Your task to perform on an android device: Search for "sony triple a" on amazon, select the first entry, and add it to the cart. Image 0: 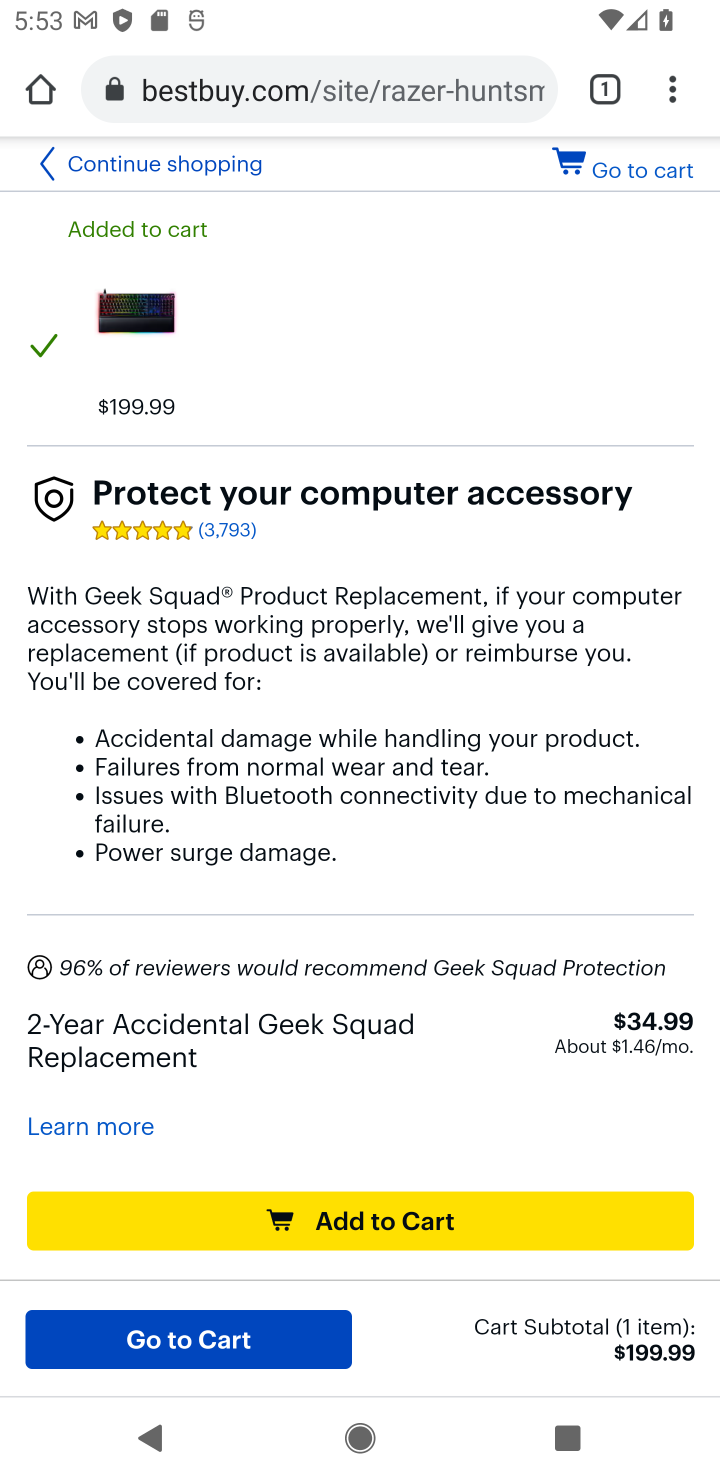
Step 0: click (618, 88)
Your task to perform on an android device: Search for "sony triple a" on amazon, select the first entry, and add it to the cart. Image 1: 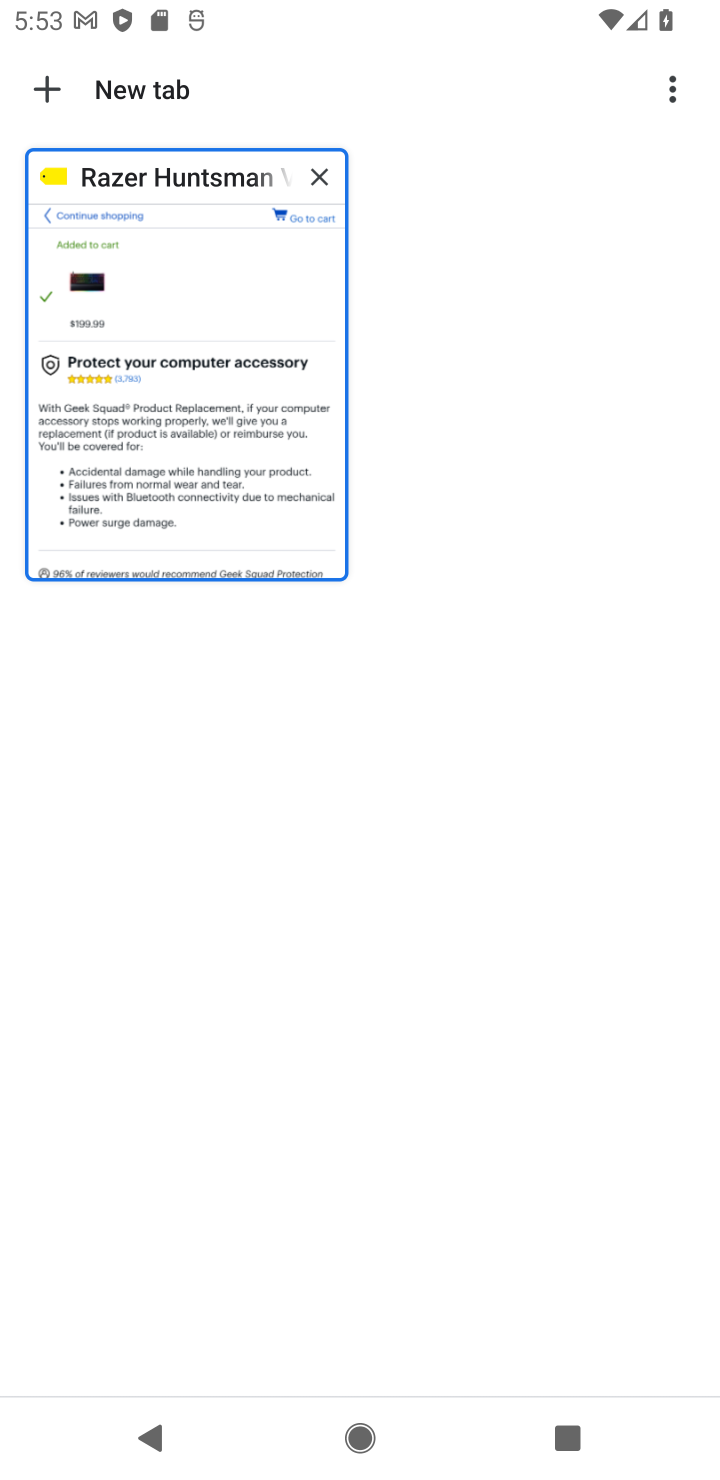
Step 1: click (41, 95)
Your task to perform on an android device: Search for "sony triple a" on amazon, select the first entry, and add it to the cart. Image 2: 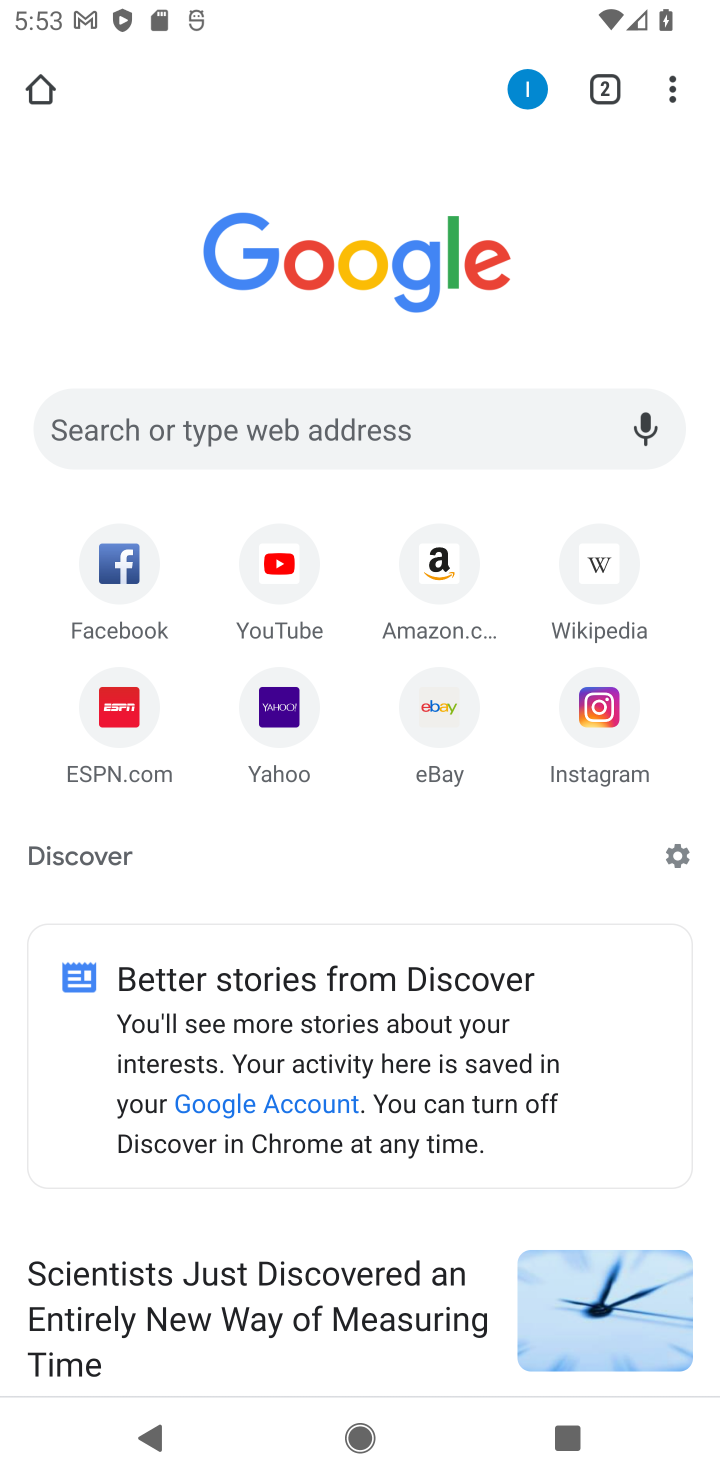
Step 2: click (434, 563)
Your task to perform on an android device: Search for "sony triple a" on amazon, select the first entry, and add it to the cart. Image 3: 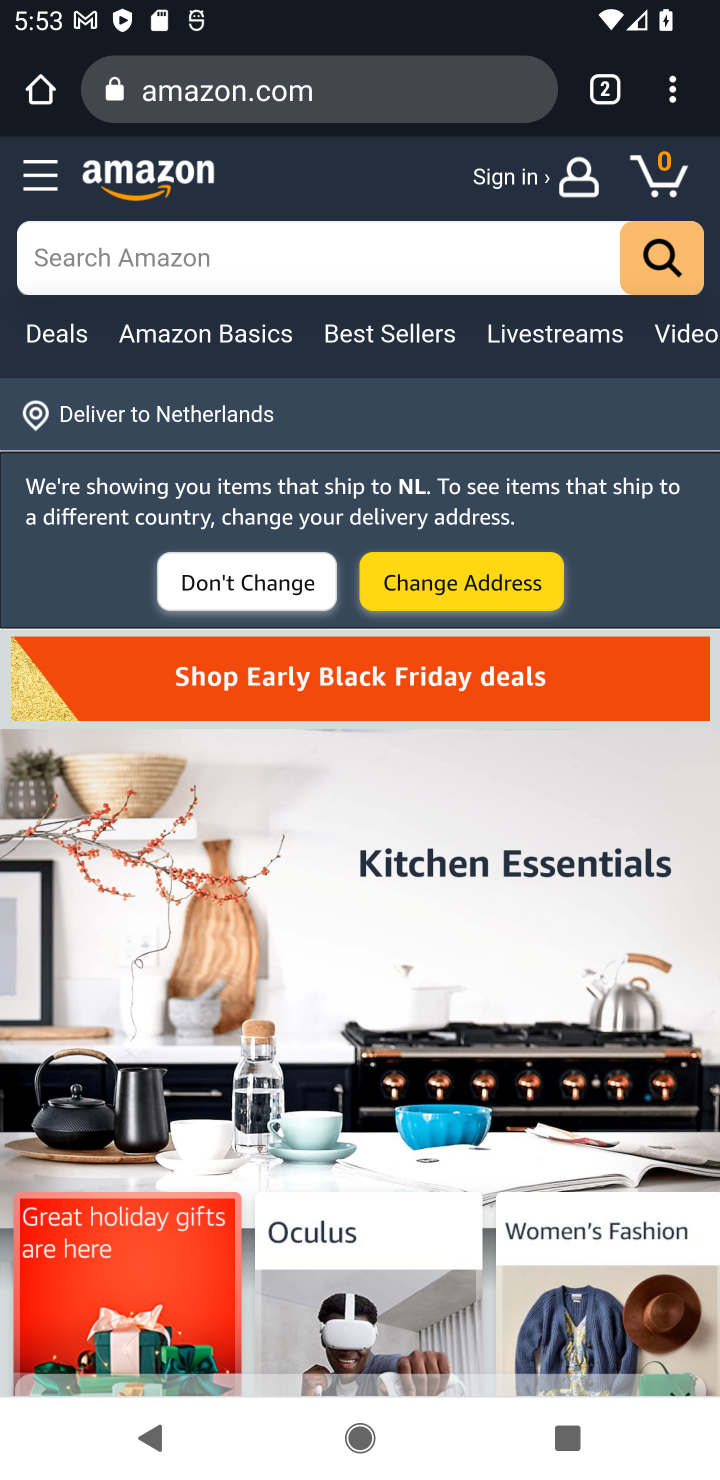
Step 3: click (430, 264)
Your task to perform on an android device: Search for "sony triple a" on amazon, select the first entry, and add it to the cart. Image 4: 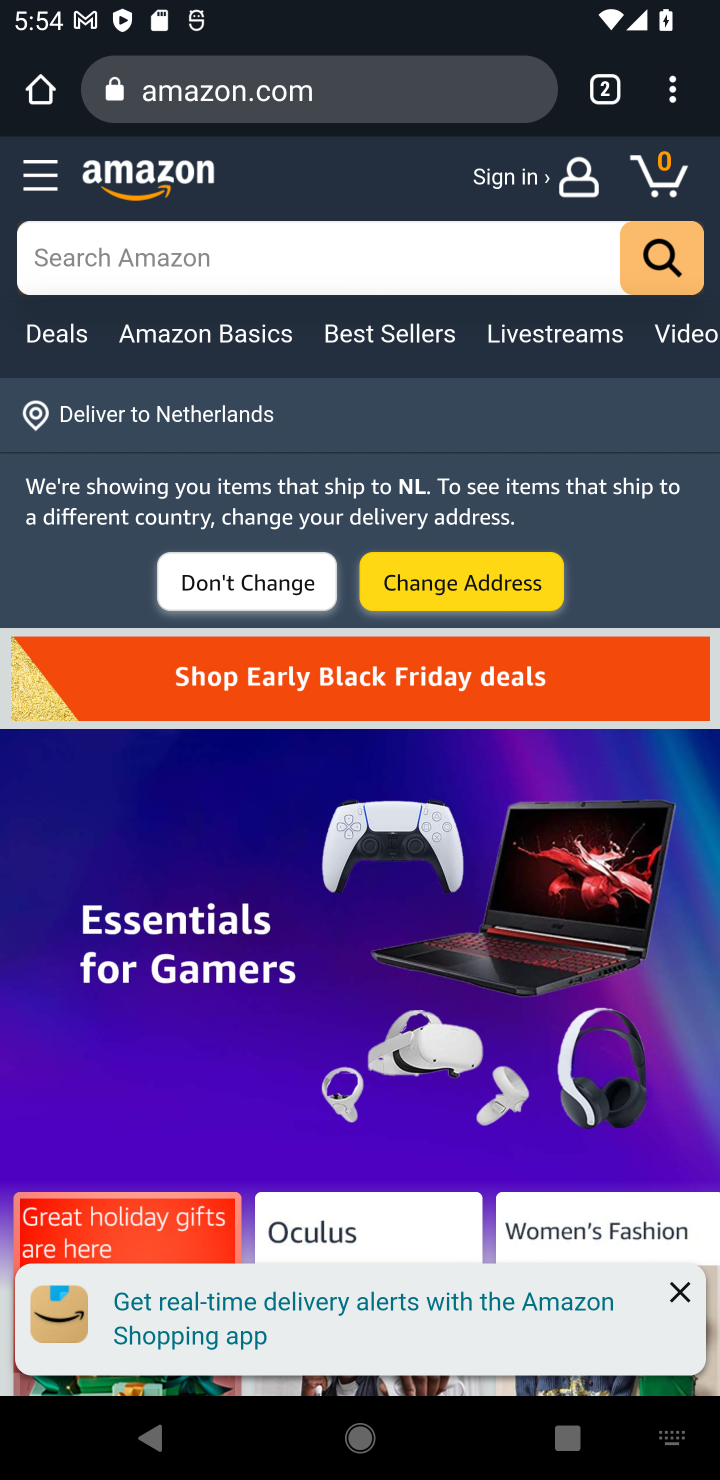
Step 4: type "sony triple a"
Your task to perform on an android device: Search for "sony triple a" on amazon, select the first entry, and add it to the cart. Image 5: 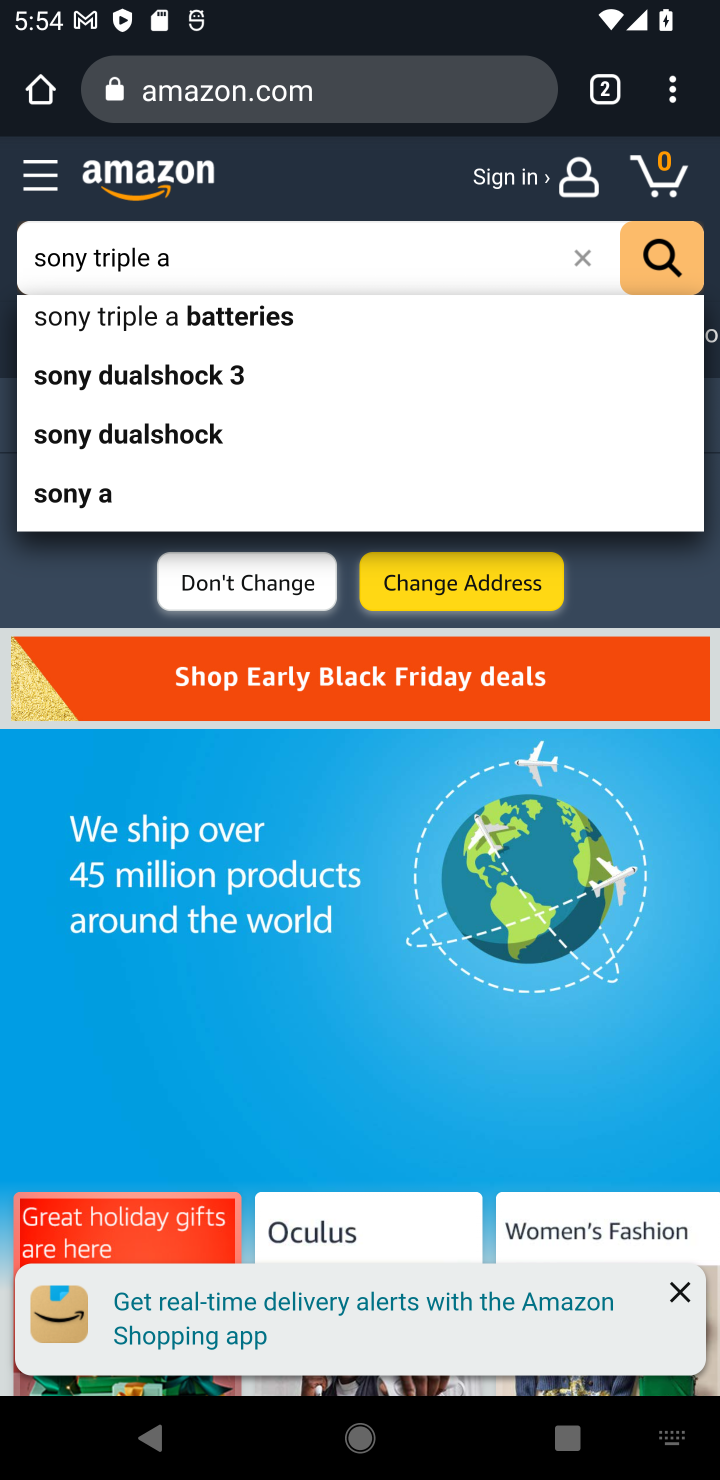
Step 5: click (222, 322)
Your task to perform on an android device: Search for "sony triple a" on amazon, select the first entry, and add it to the cart. Image 6: 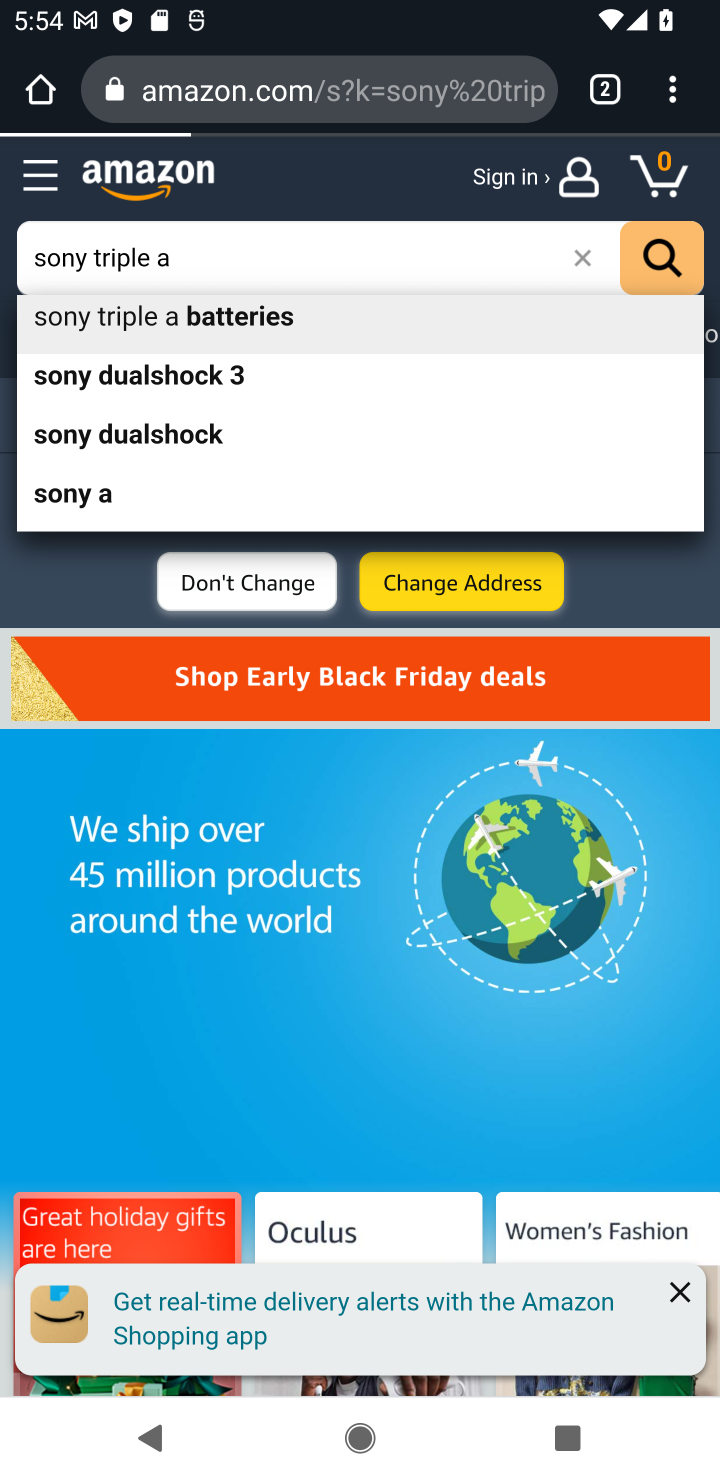
Step 6: click (222, 322)
Your task to perform on an android device: Search for "sony triple a" on amazon, select the first entry, and add it to the cart. Image 7: 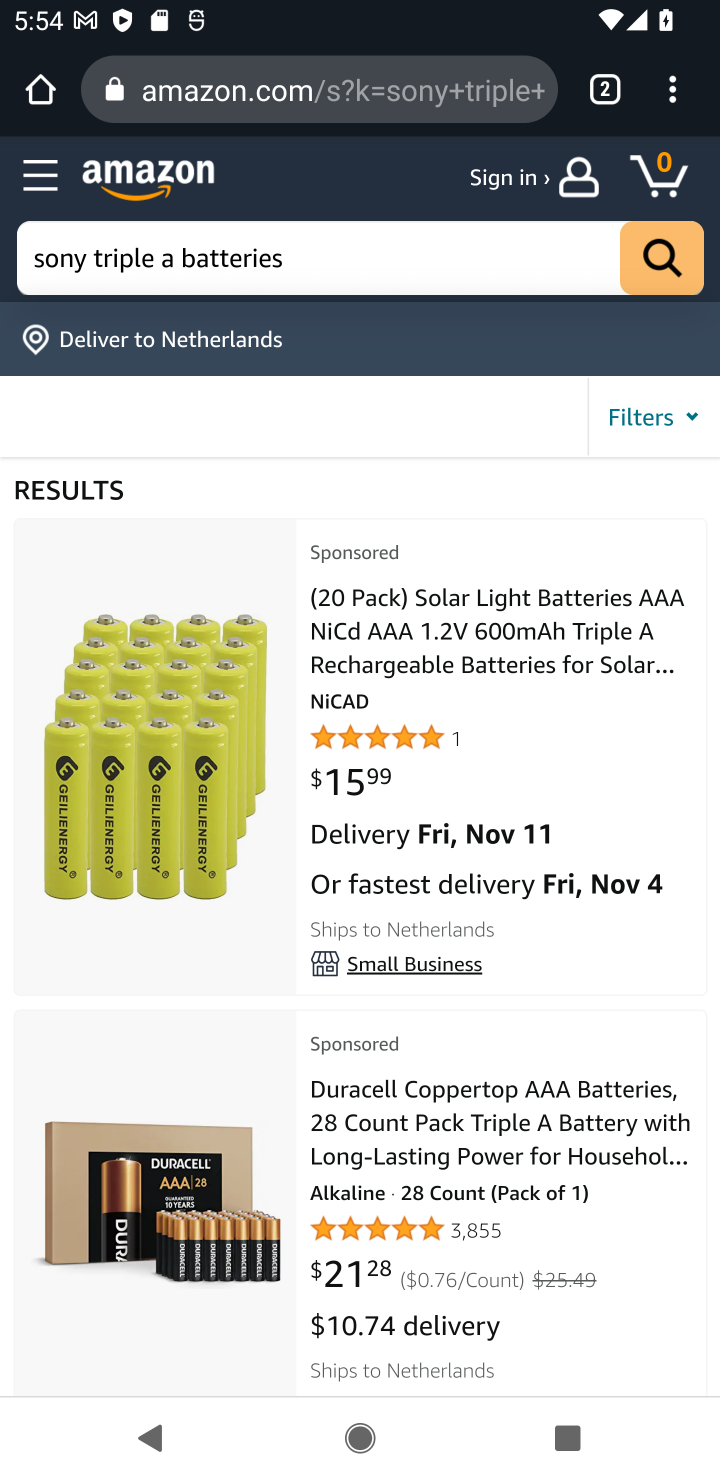
Step 7: drag from (470, 1285) to (687, 228)
Your task to perform on an android device: Search for "sony triple a" on amazon, select the first entry, and add it to the cart. Image 8: 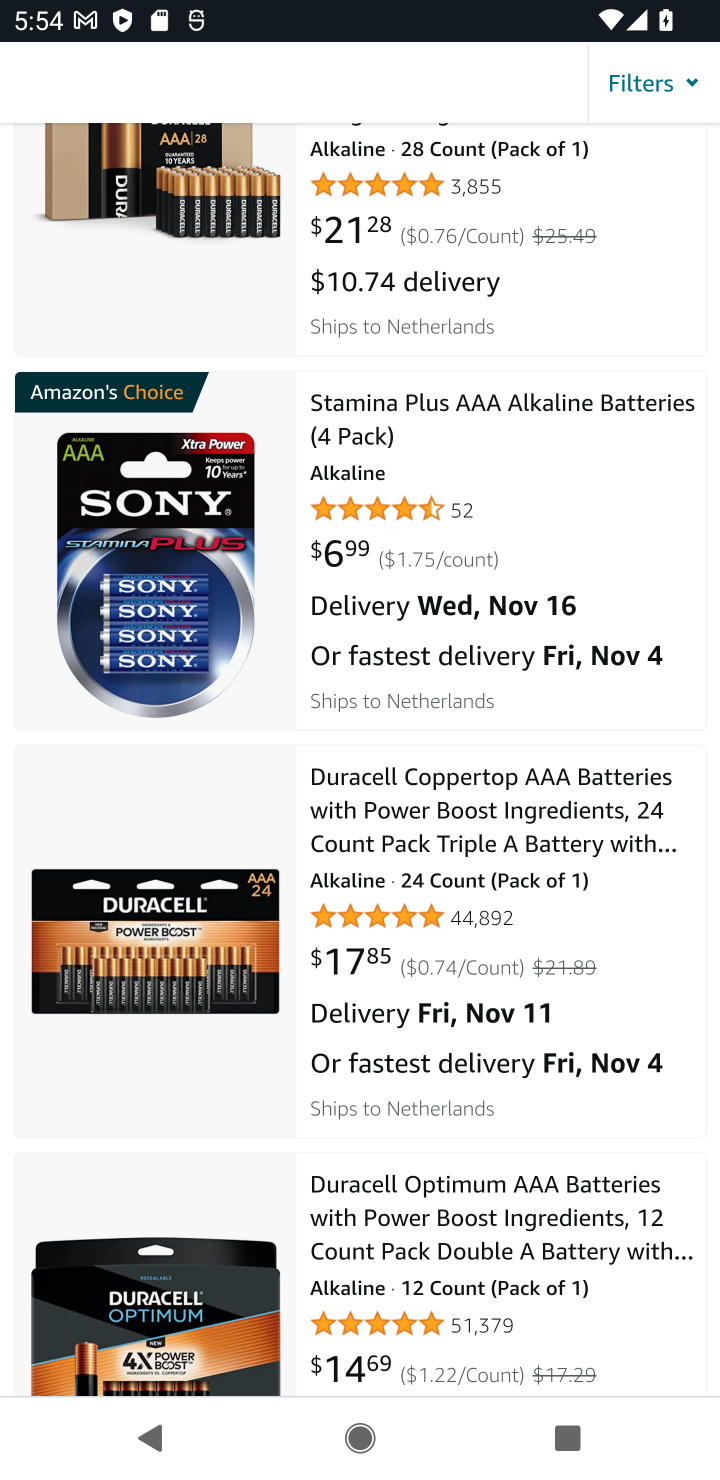
Step 8: drag from (495, 367) to (404, 1002)
Your task to perform on an android device: Search for "sony triple a" on amazon, select the first entry, and add it to the cart. Image 9: 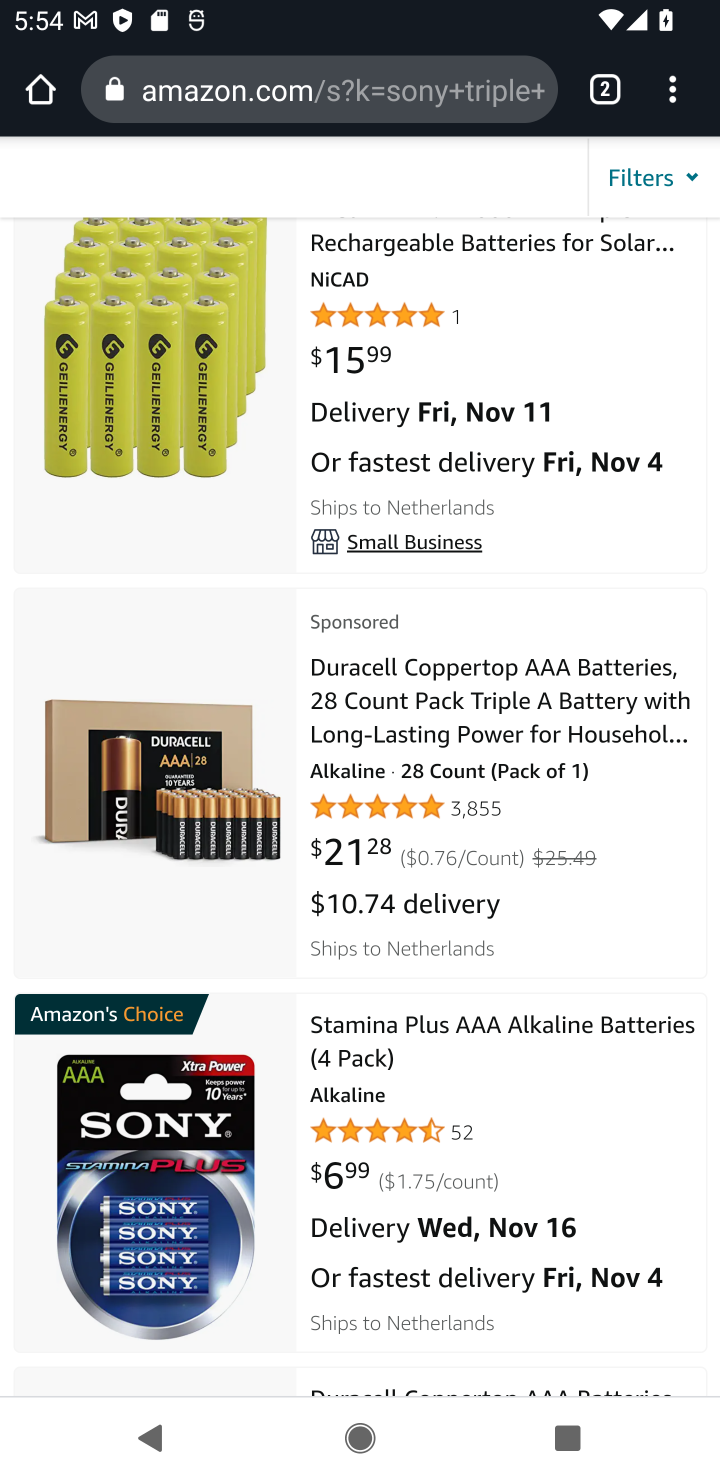
Step 9: click (161, 635)
Your task to perform on an android device: Search for "sony triple a" on amazon, select the first entry, and add it to the cart. Image 10: 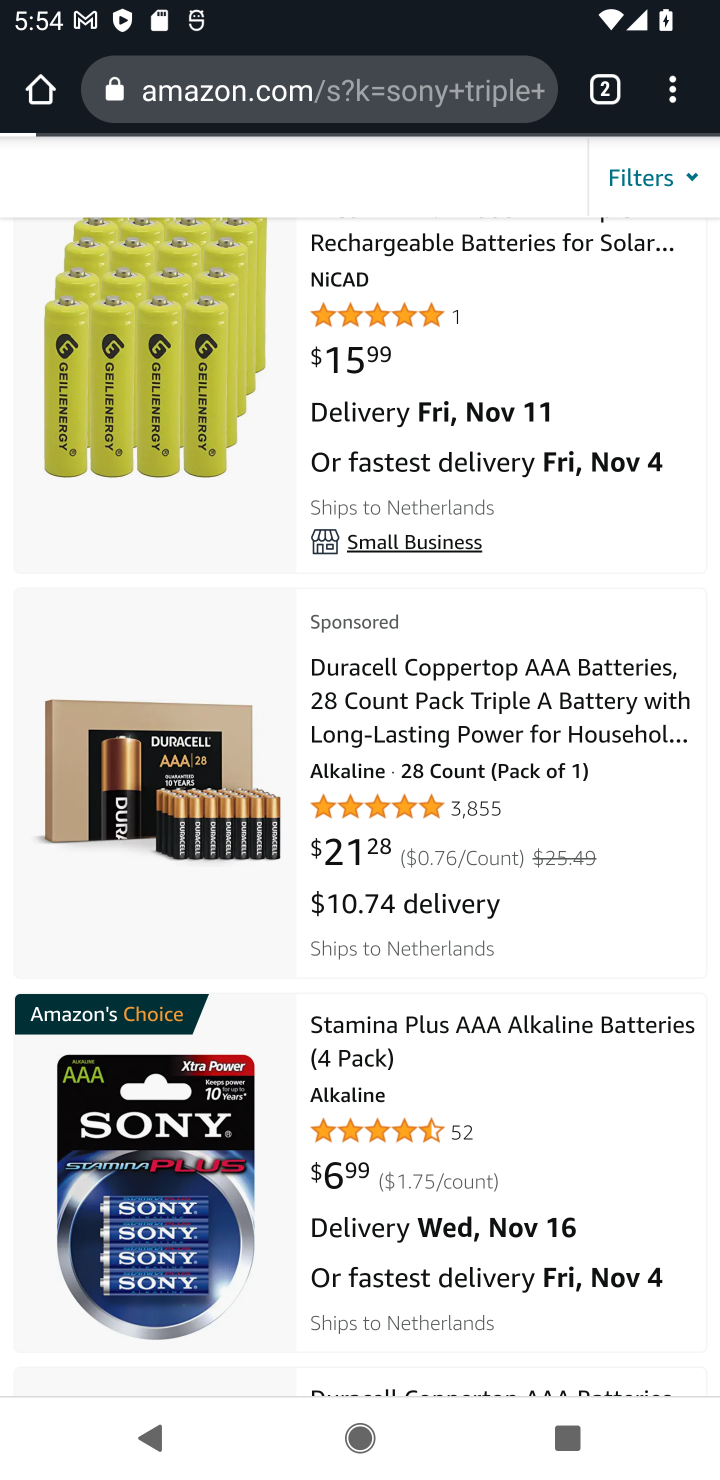
Step 10: click (129, 1216)
Your task to perform on an android device: Search for "sony triple a" on amazon, select the first entry, and add it to the cart. Image 11: 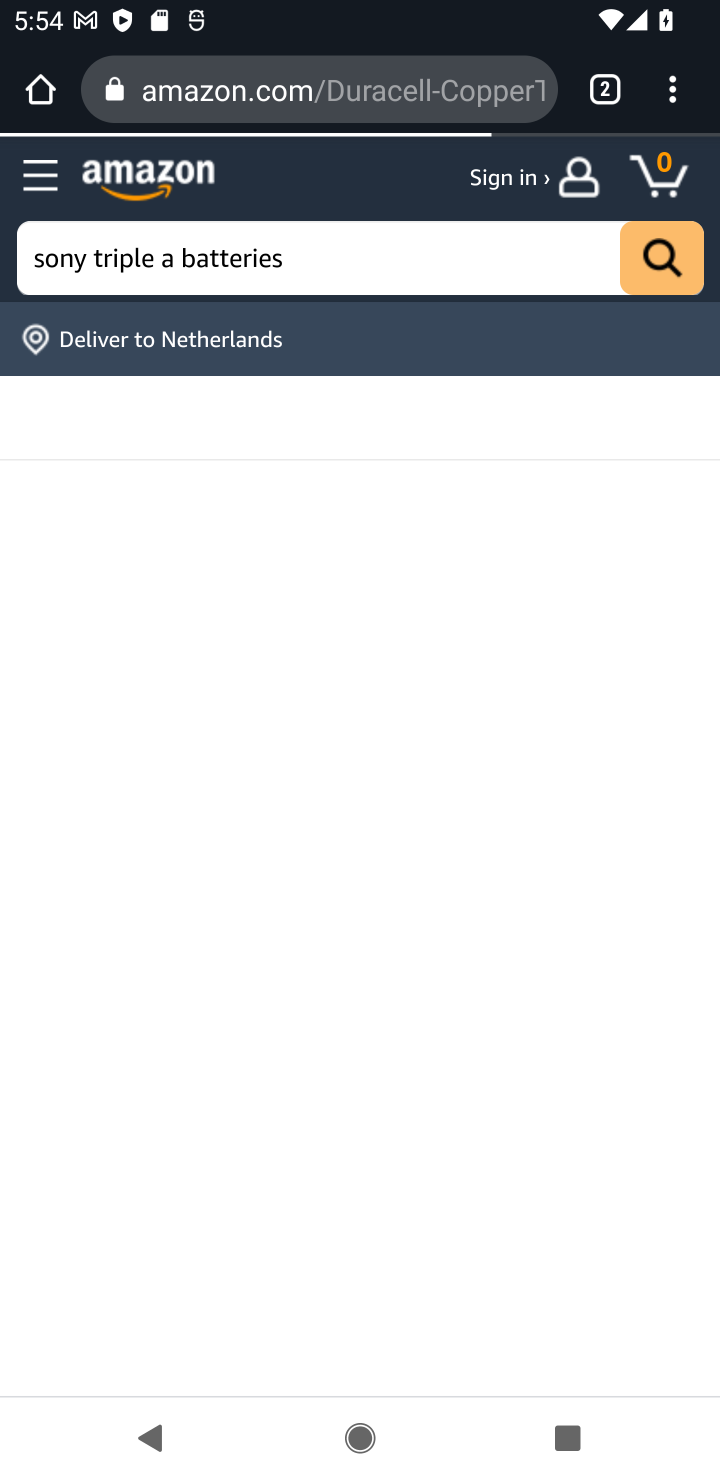
Step 11: click (401, 1026)
Your task to perform on an android device: Search for "sony triple a" on amazon, select the first entry, and add it to the cart. Image 12: 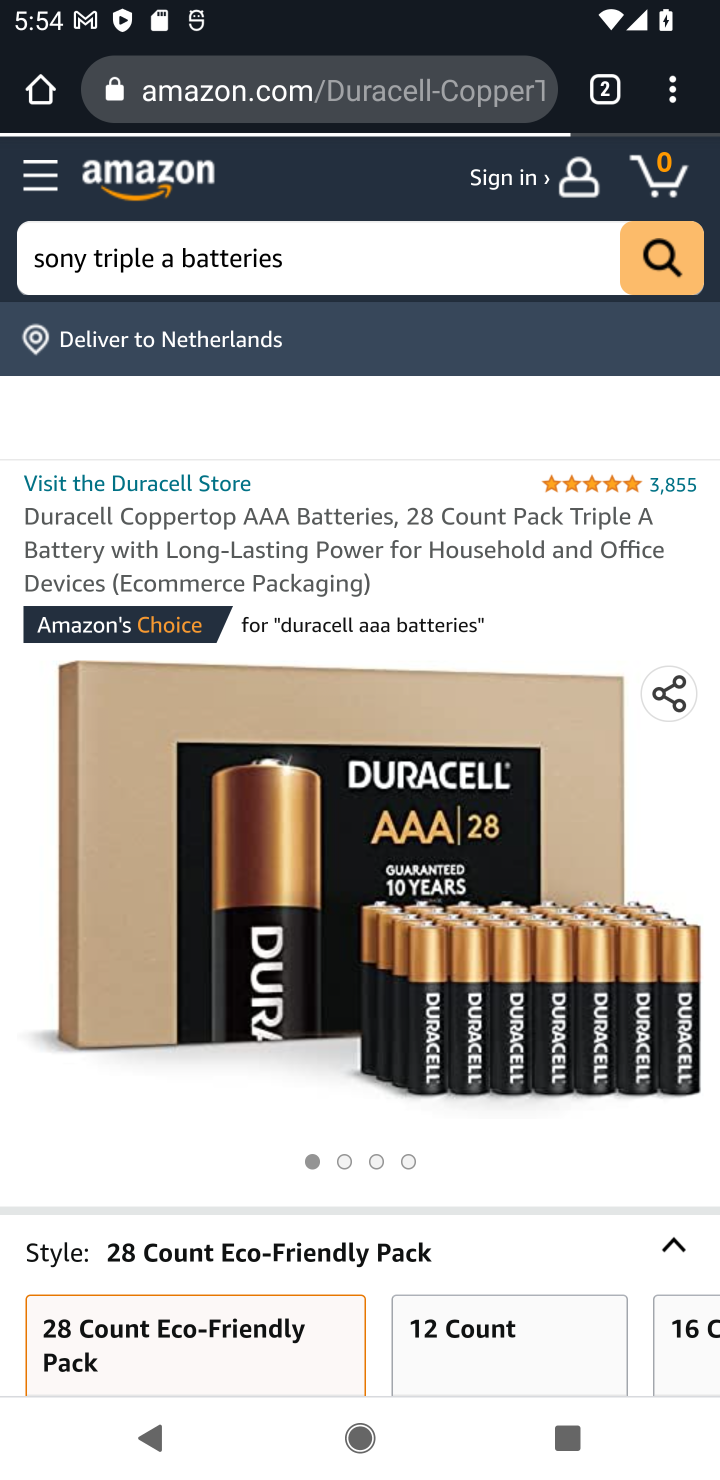
Step 12: drag from (353, 1270) to (454, 713)
Your task to perform on an android device: Search for "sony triple a" on amazon, select the first entry, and add it to the cart. Image 13: 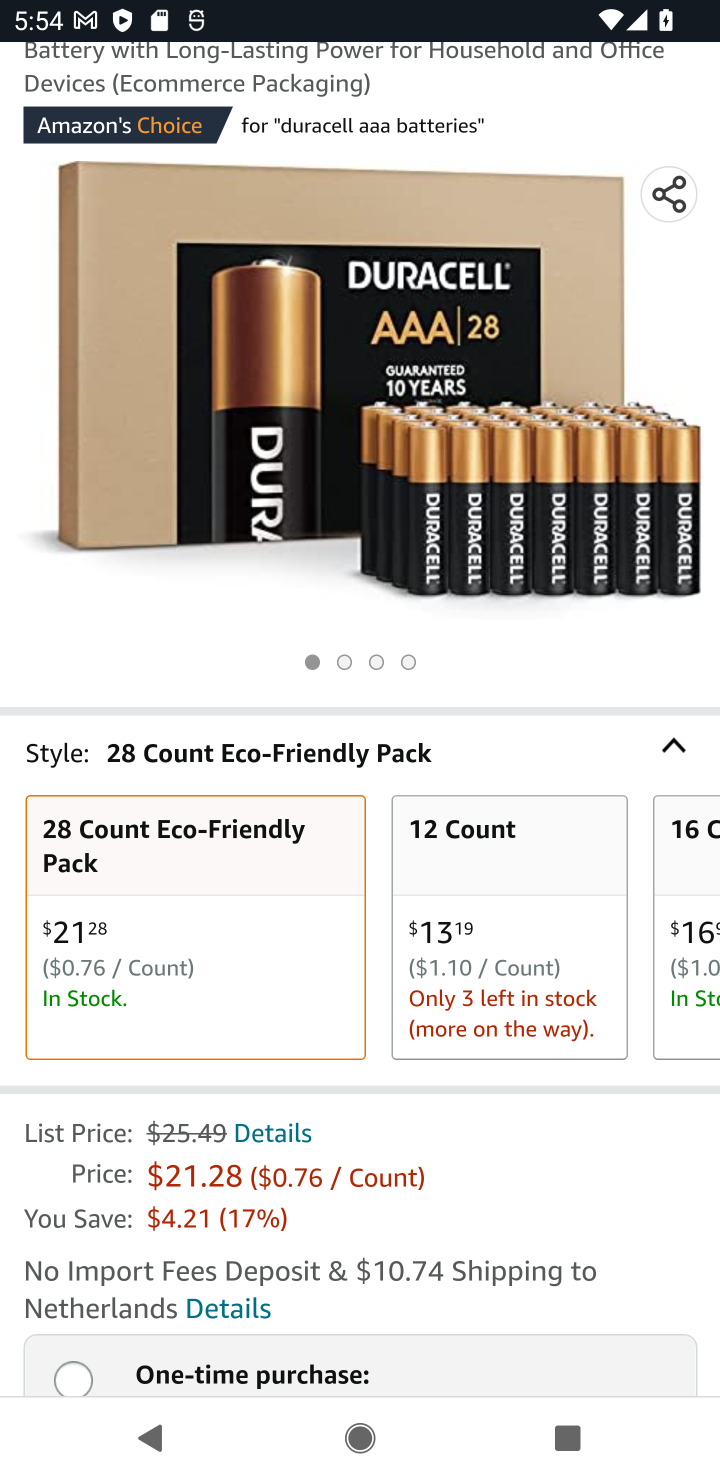
Step 13: click (561, 643)
Your task to perform on an android device: Search for "sony triple a" on amazon, select the first entry, and add it to the cart. Image 14: 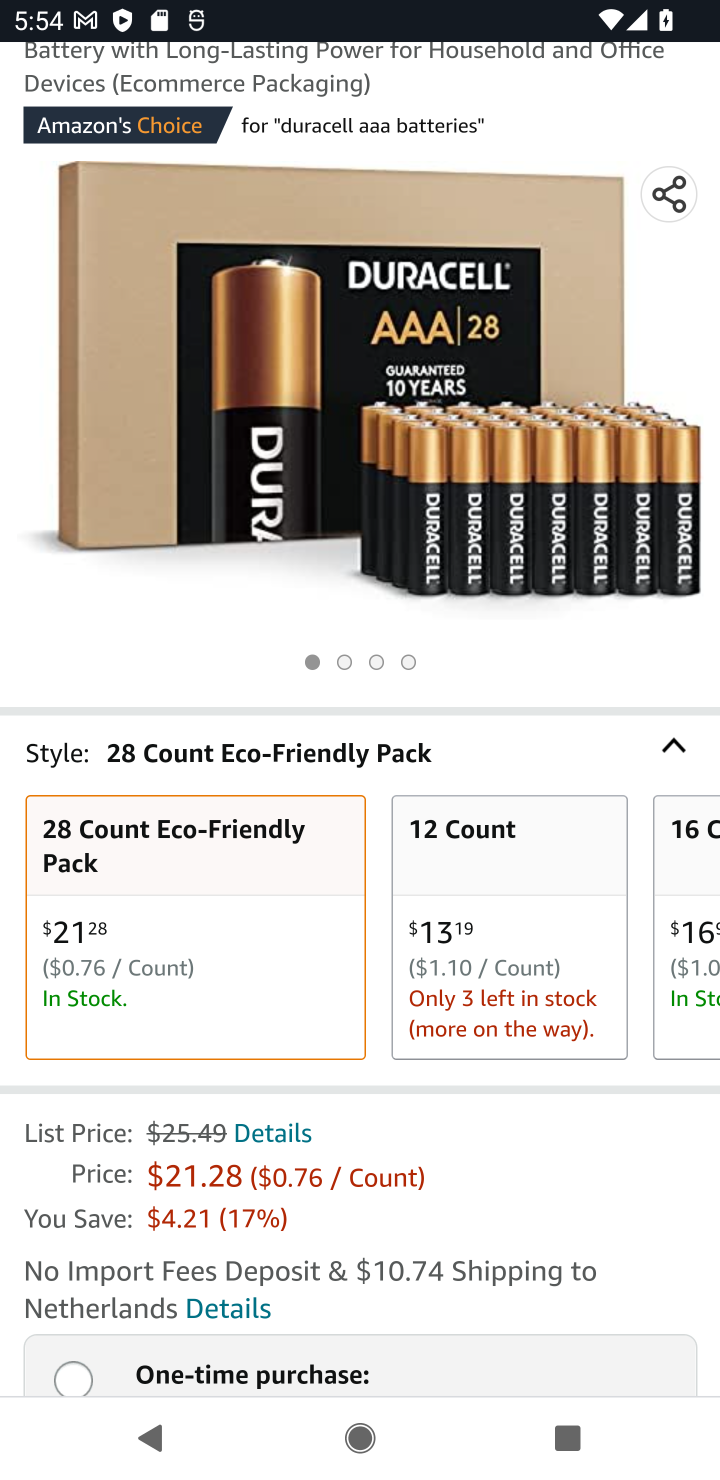
Step 14: drag from (448, 1214) to (609, 566)
Your task to perform on an android device: Search for "sony triple a" on amazon, select the first entry, and add it to the cart. Image 15: 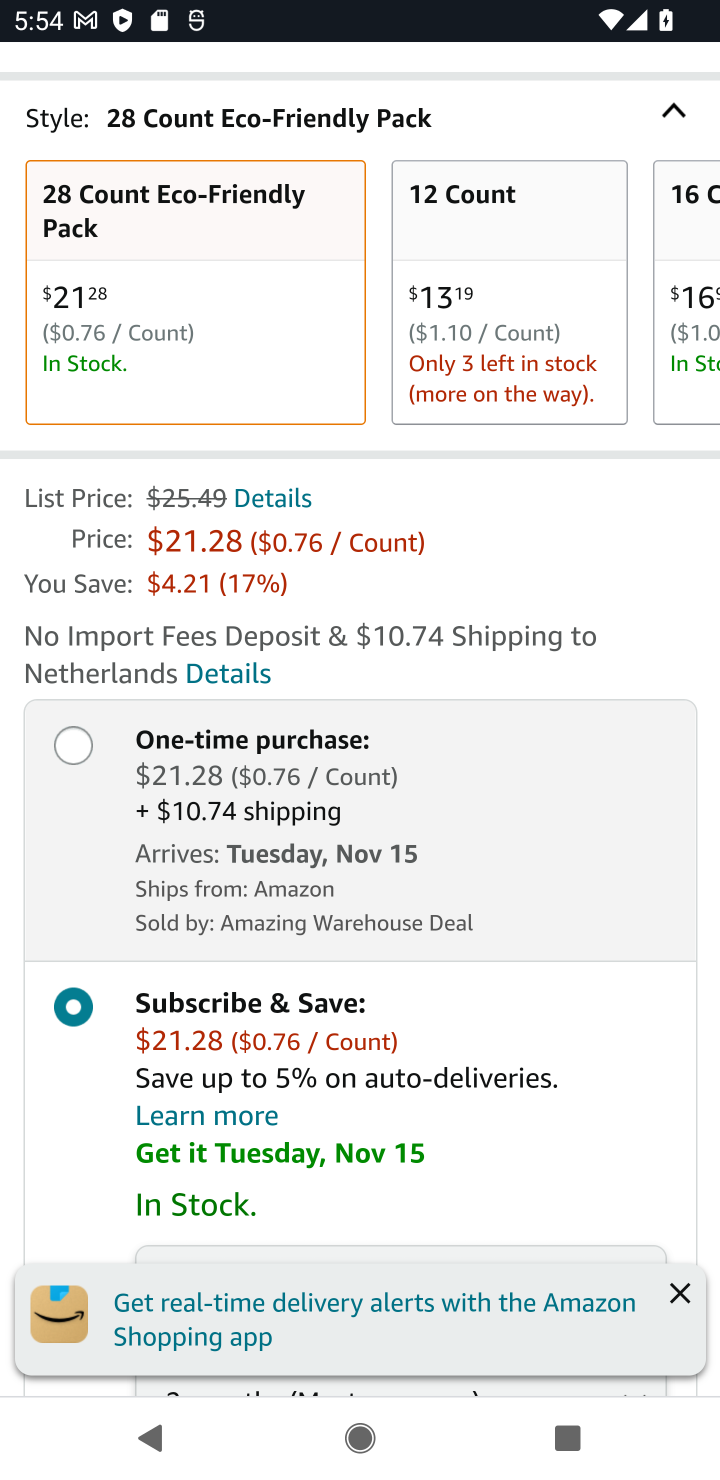
Step 15: drag from (427, 1173) to (505, 245)
Your task to perform on an android device: Search for "sony triple a" on amazon, select the first entry, and add it to the cart. Image 16: 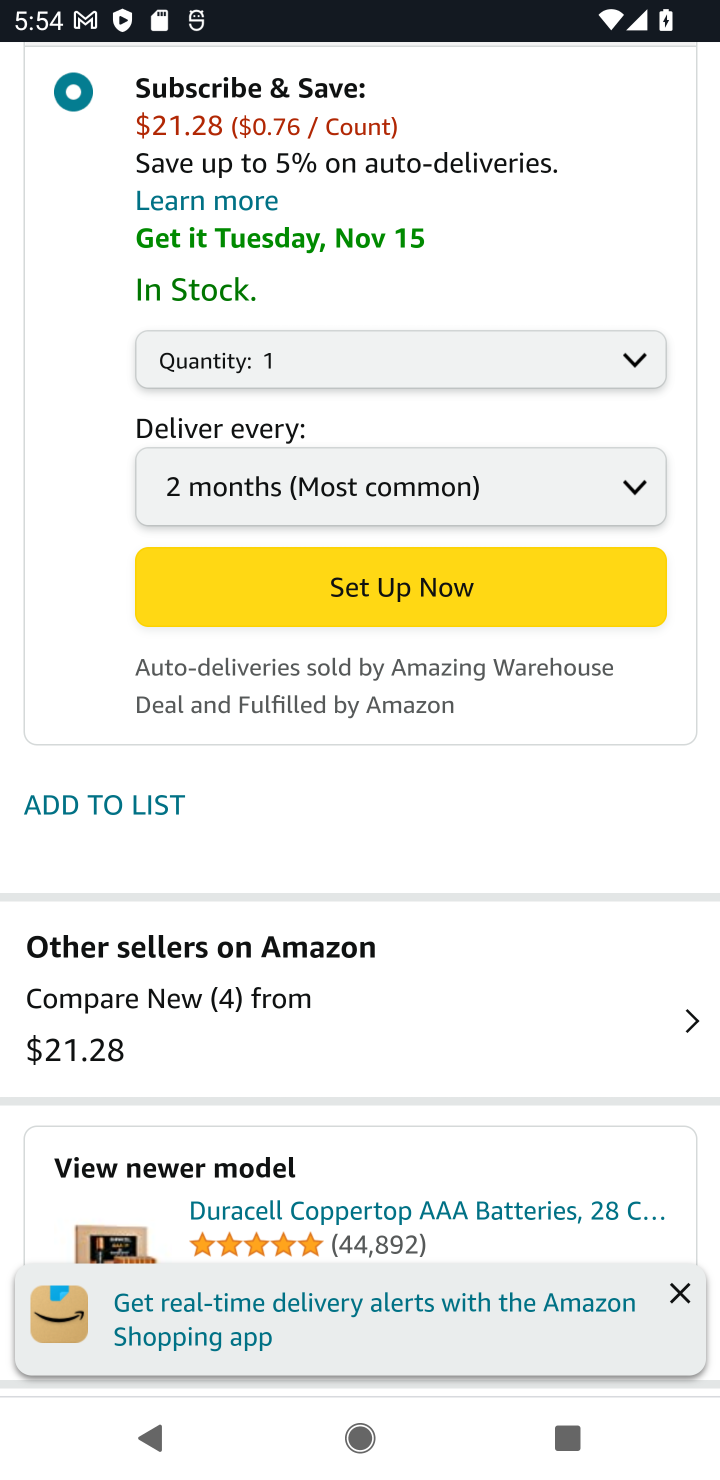
Step 16: click (677, 1297)
Your task to perform on an android device: Search for "sony triple a" on amazon, select the first entry, and add it to the cart. Image 17: 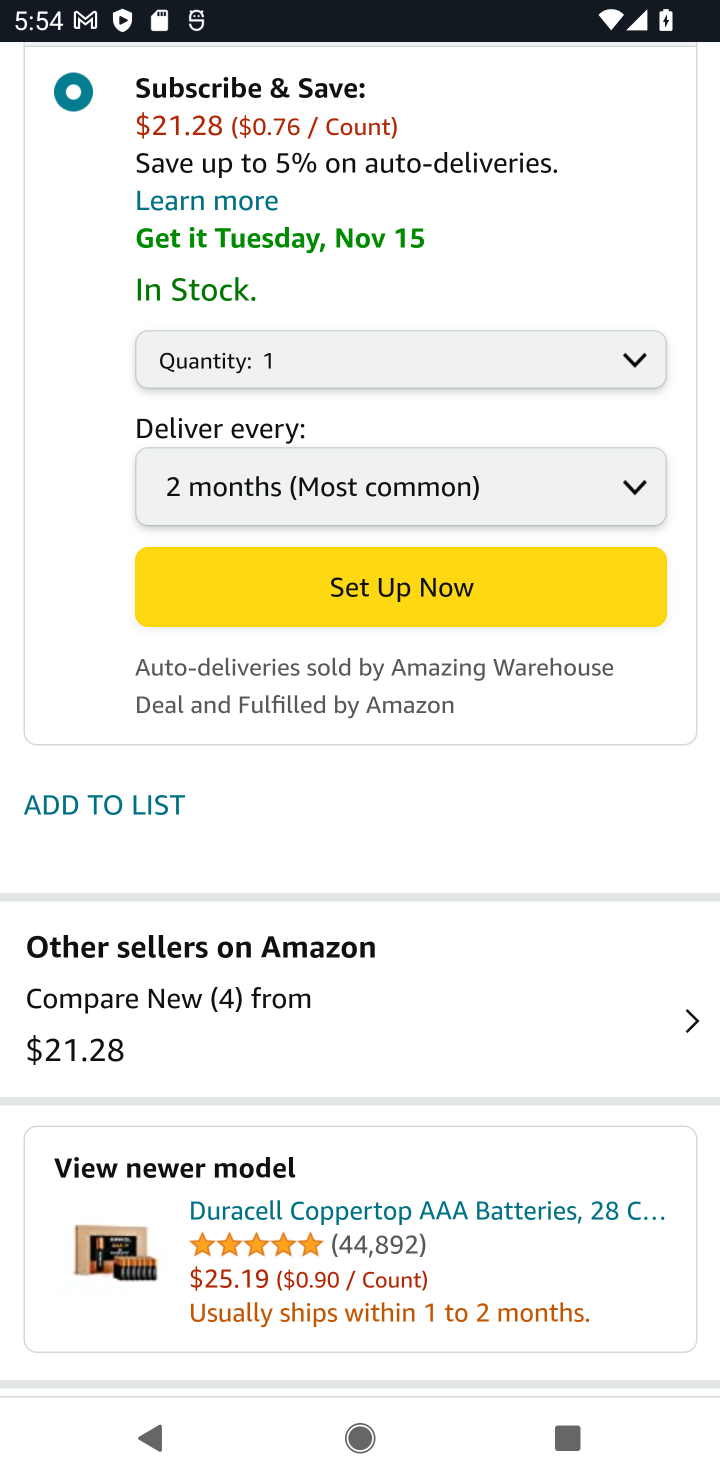
Step 17: click (75, 805)
Your task to perform on an android device: Search for "sony triple a" on amazon, select the first entry, and add it to the cart. Image 18: 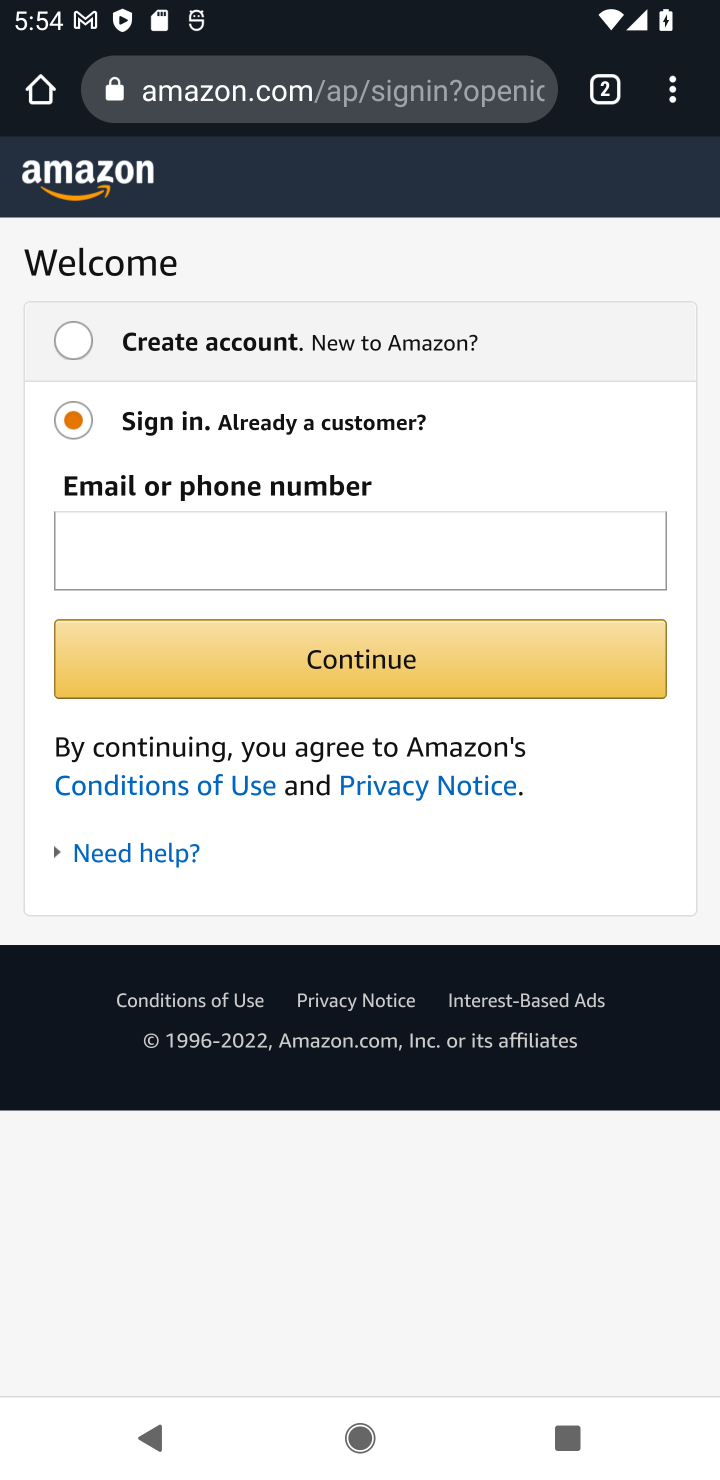
Step 18: task complete